Your task to perform on an android device: allow notifications from all sites in the chrome app Image 0: 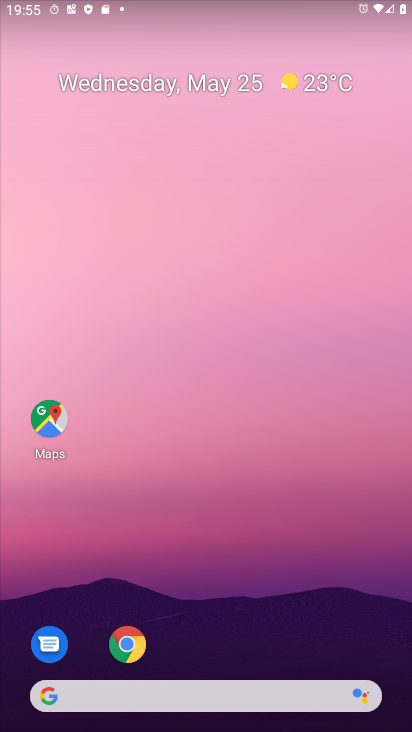
Step 0: drag from (309, 710) to (253, 105)
Your task to perform on an android device: allow notifications from all sites in the chrome app Image 1: 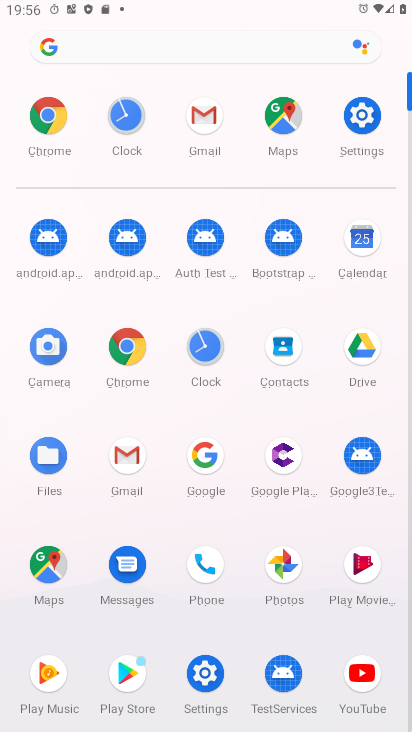
Step 1: click (35, 126)
Your task to perform on an android device: allow notifications from all sites in the chrome app Image 2: 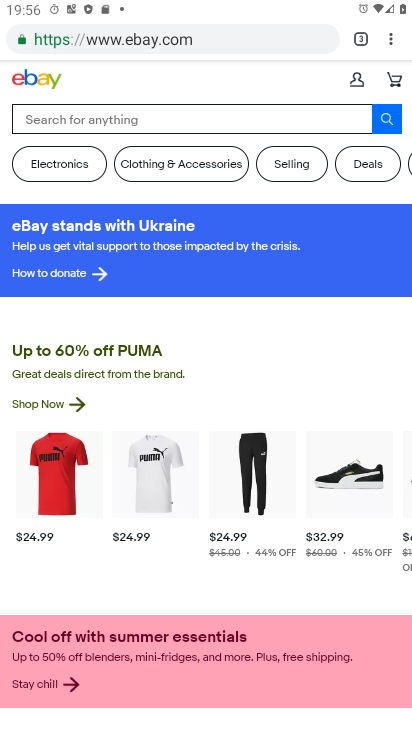
Step 2: click (394, 50)
Your task to perform on an android device: allow notifications from all sites in the chrome app Image 3: 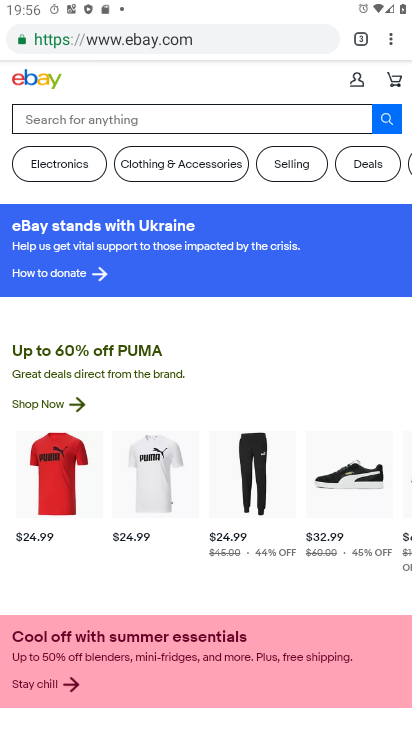
Step 3: click (394, 44)
Your task to perform on an android device: allow notifications from all sites in the chrome app Image 4: 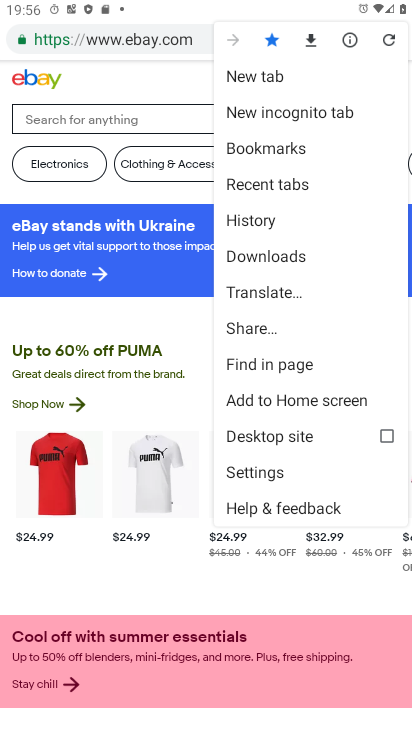
Step 4: click (245, 478)
Your task to perform on an android device: allow notifications from all sites in the chrome app Image 5: 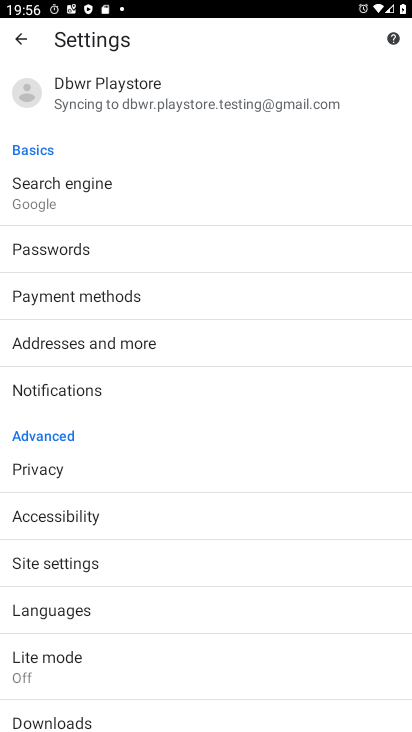
Step 5: click (86, 556)
Your task to perform on an android device: allow notifications from all sites in the chrome app Image 6: 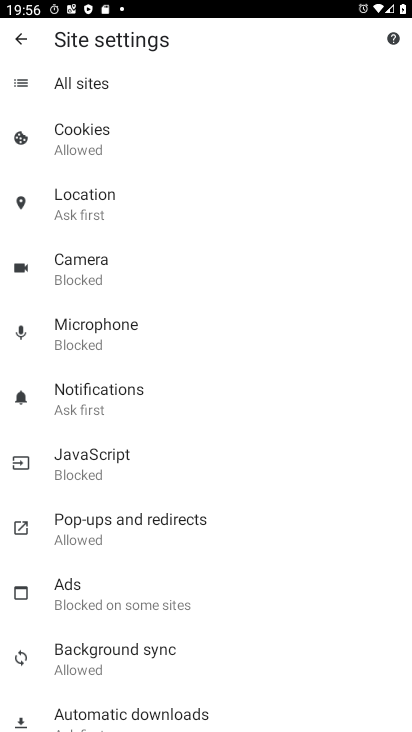
Step 6: click (103, 397)
Your task to perform on an android device: allow notifications from all sites in the chrome app Image 7: 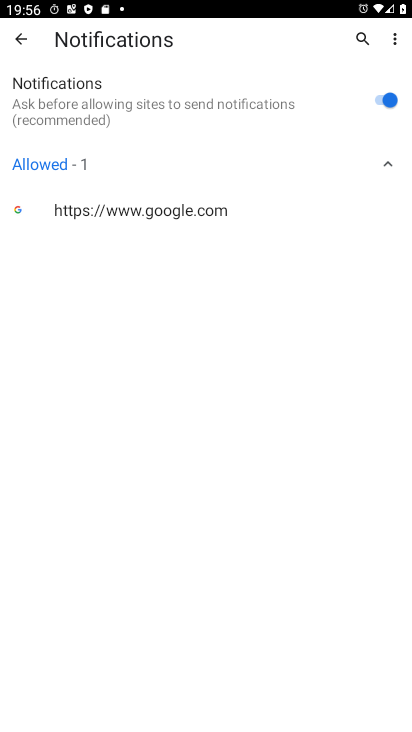
Step 7: task complete